Your task to perform on an android device: Toggle the flashlight Image 0: 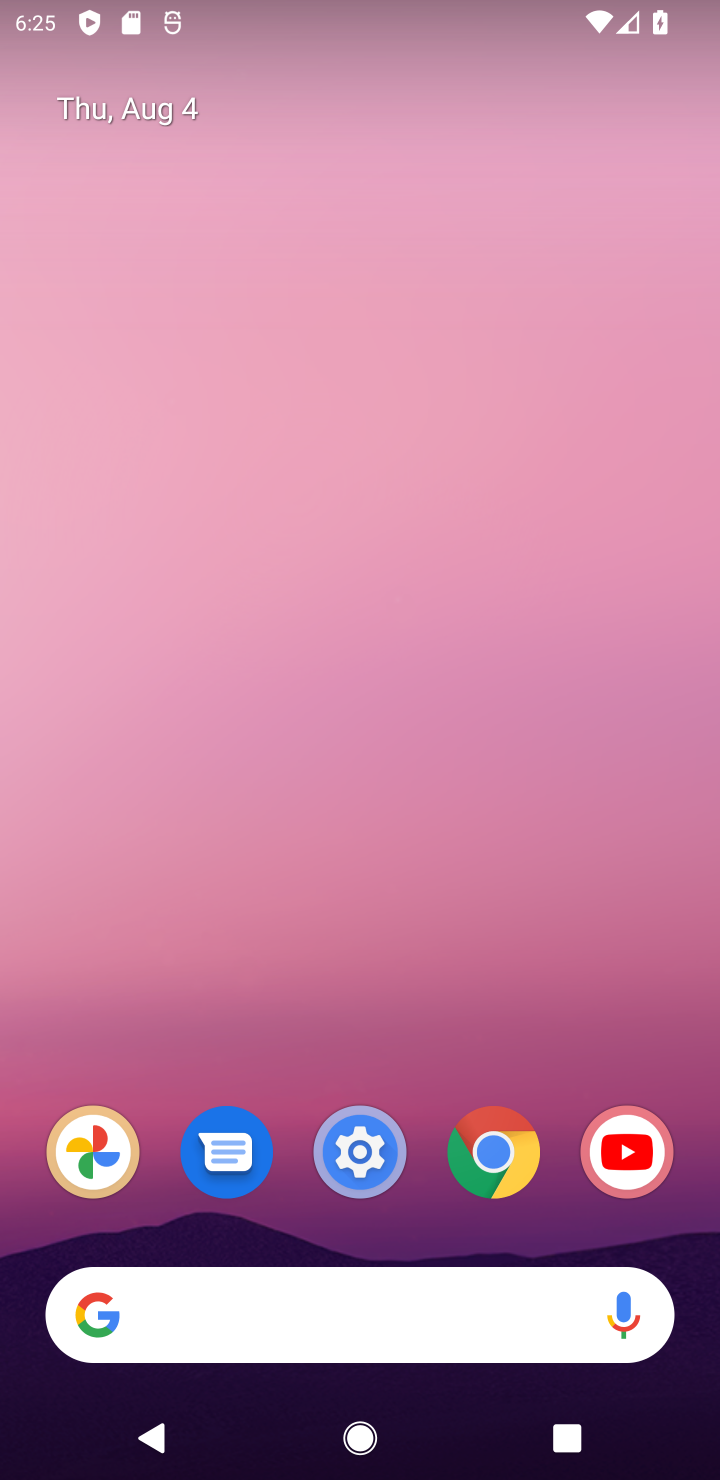
Step 0: drag from (359, 95) to (259, 966)
Your task to perform on an android device: Toggle the flashlight Image 1: 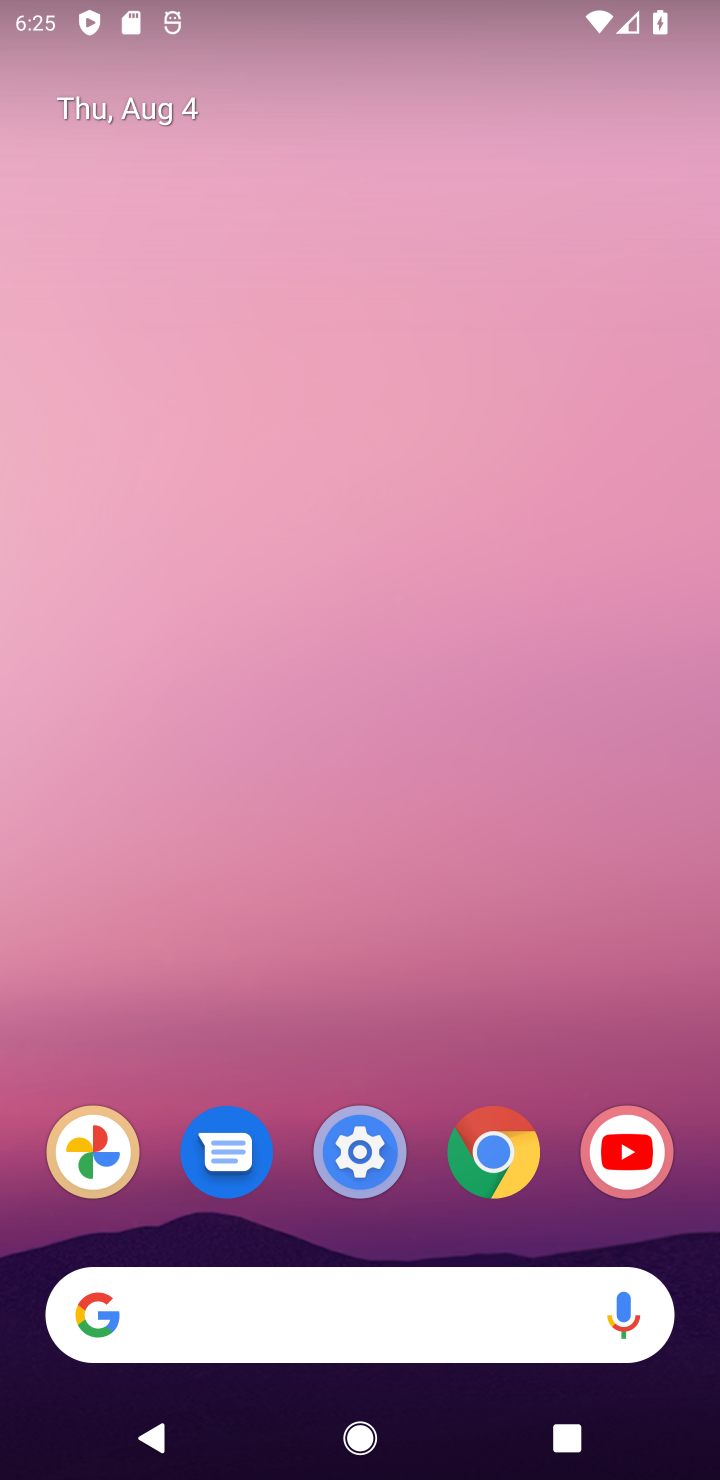
Step 1: task complete